Your task to perform on an android device: Show me productivity apps on the Play Store Image 0: 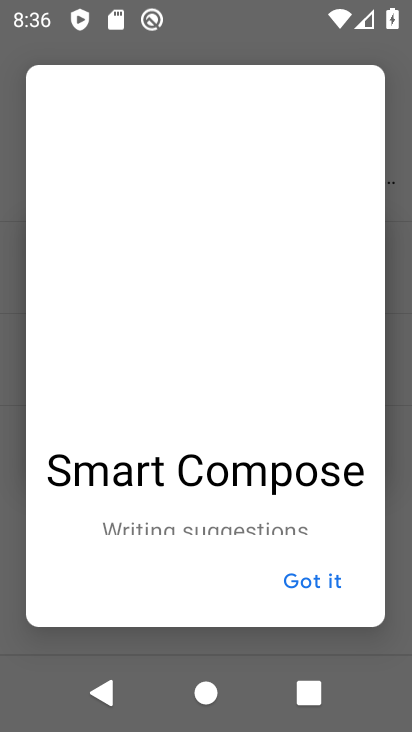
Step 0: press home button
Your task to perform on an android device: Show me productivity apps on the Play Store Image 1: 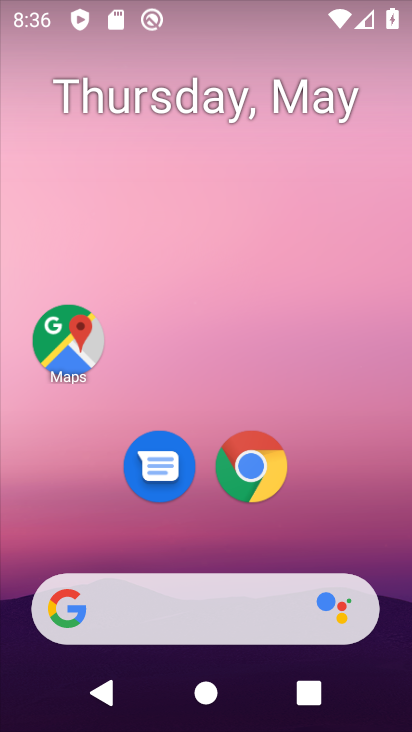
Step 1: drag from (388, 617) to (225, 8)
Your task to perform on an android device: Show me productivity apps on the Play Store Image 2: 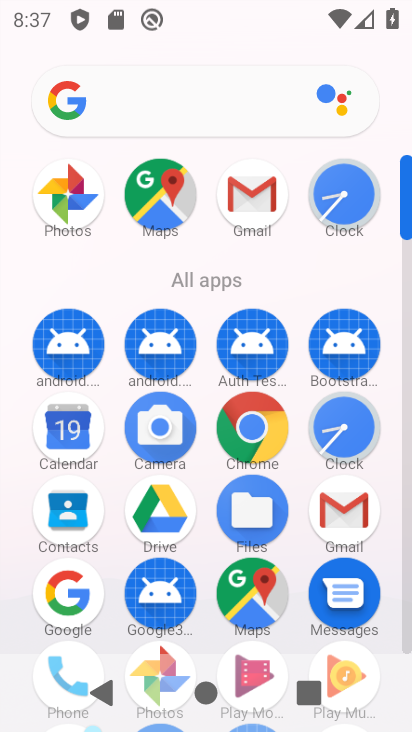
Step 2: drag from (205, 630) to (169, 176)
Your task to perform on an android device: Show me productivity apps on the Play Store Image 3: 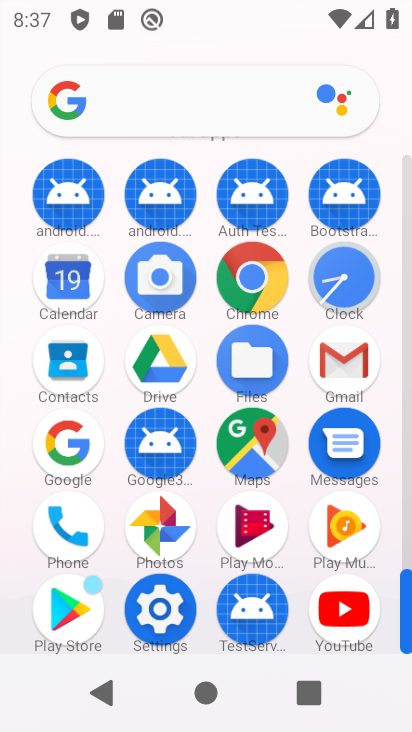
Step 3: click (79, 623)
Your task to perform on an android device: Show me productivity apps on the Play Store Image 4: 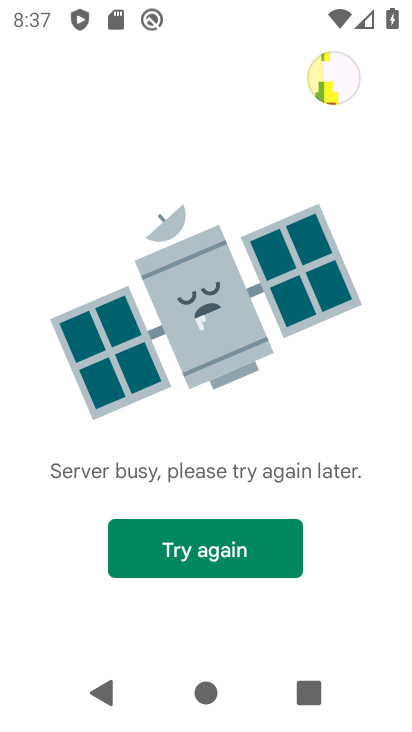
Step 4: task complete